Your task to perform on an android device: open chrome and create a bookmark for the current page Image 0: 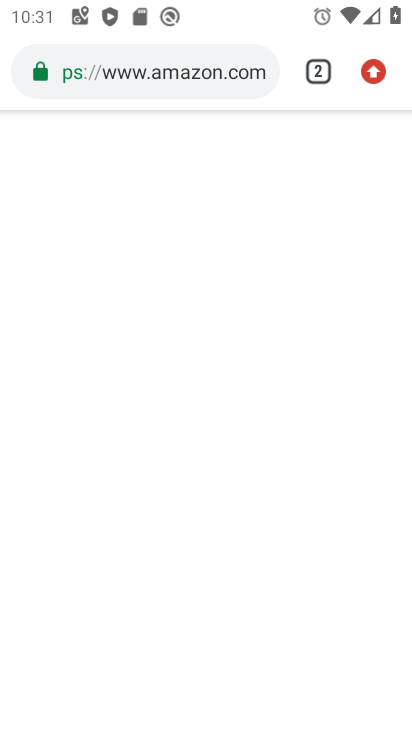
Step 0: drag from (373, 68) to (152, 71)
Your task to perform on an android device: open chrome and create a bookmark for the current page Image 1: 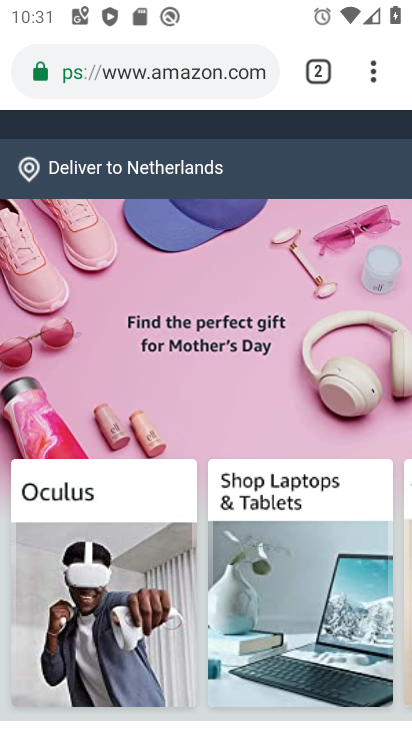
Step 1: task complete